Your task to perform on an android device: turn off sleep mode Image 0: 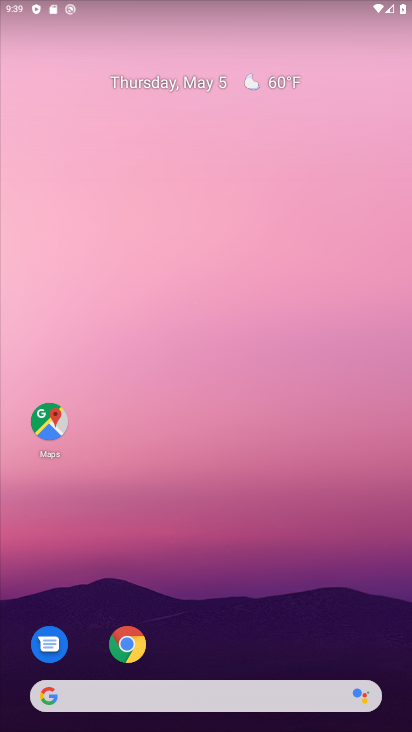
Step 0: drag from (366, 636) to (353, 102)
Your task to perform on an android device: turn off sleep mode Image 1: 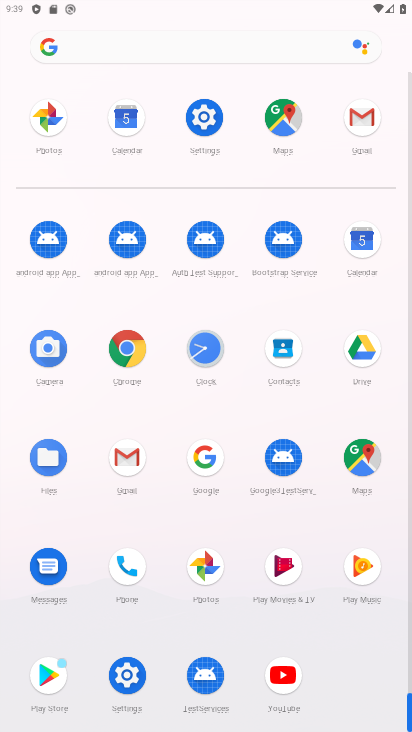
Step 1: click (201, 116)
Your task to perform on an android device: turn off sleep mode Image 2: 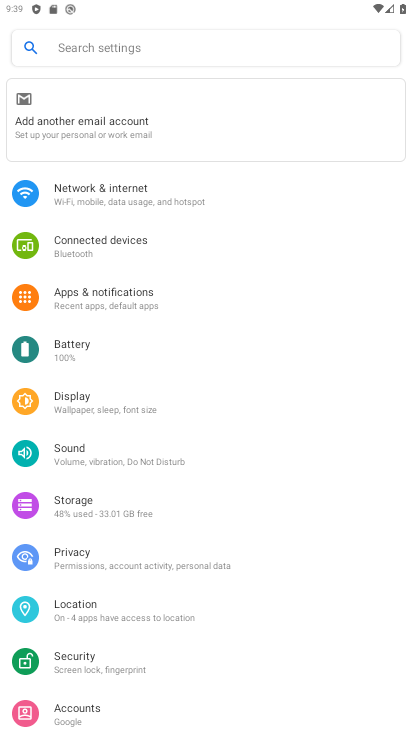
Step 2: click (102, 412)
Your task to perform on an android device: turn off sleep mode Image 3: 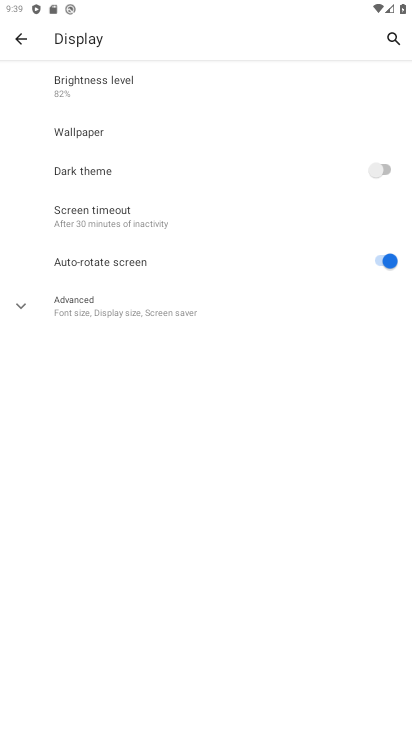
Step 3: click (12, 35)
Your task to perform on an android device: turn off sleep mode Image 4: 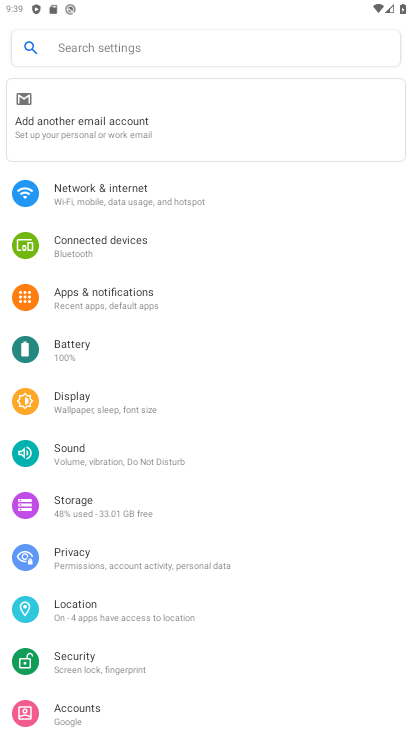
Step 4: click (174, 45)
Your task to perform on an android device: turn off sleep mode Image 5: 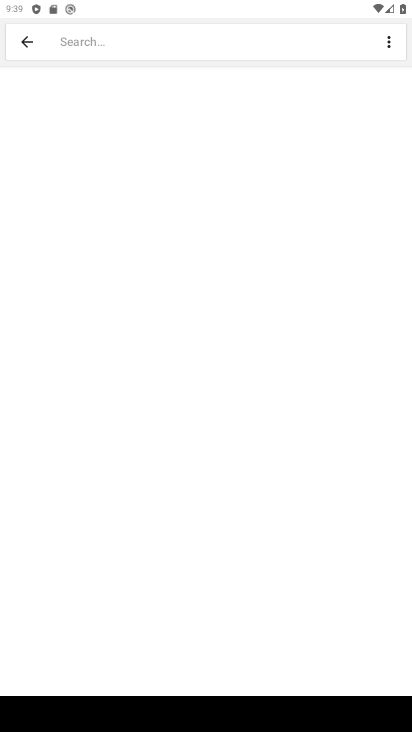
Step 5: type "sleep mode"
Your task to perform on an android device: turn off sleep mode Image 6: 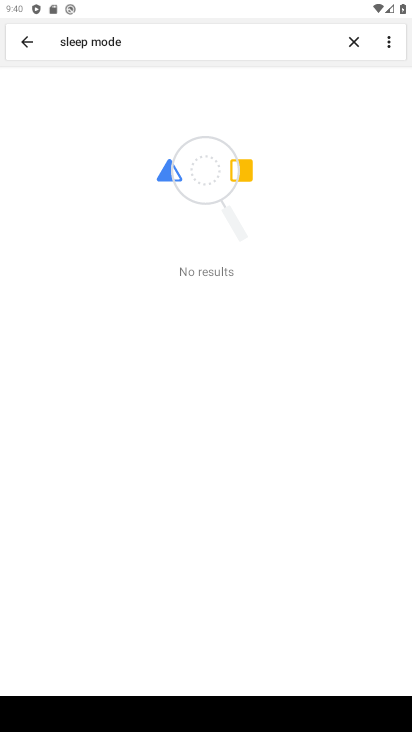
Step 6: task complete